Your task to perform on an android device: Show me popular videos on Youtube Image 0: 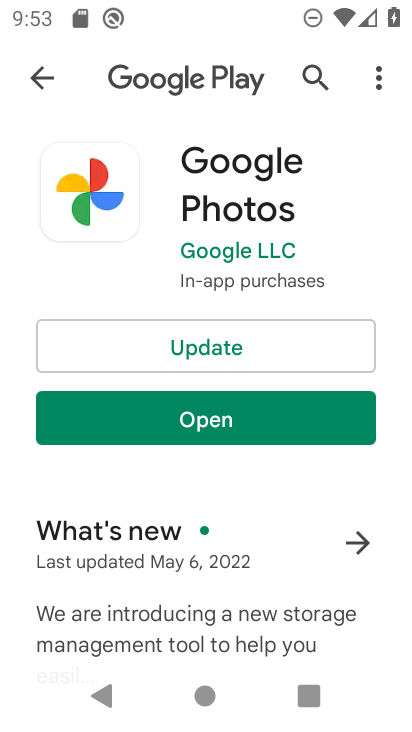
Step 0: press home button
Your task to perform on an android device: Show me popular videos on Youtube Image 1: 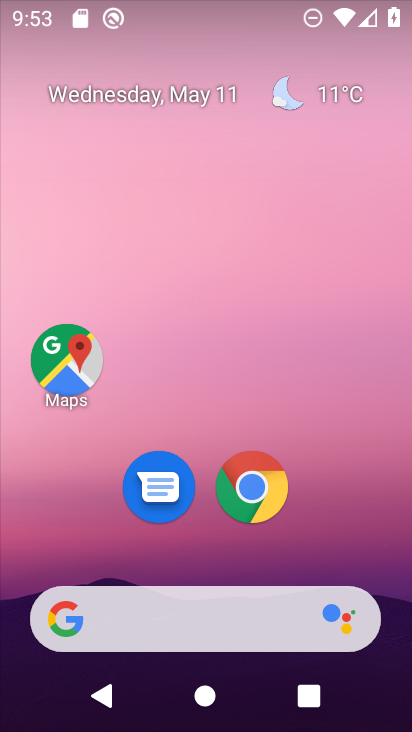
Step 1: drag from (183, 671) to (240, 319)
Your task to perform on an android device: Show me popular videos on Youtube Image 2: 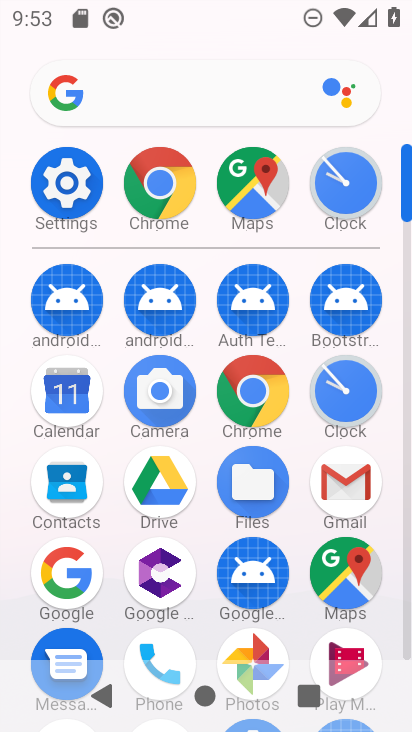
Step 2: drag from (297, 529) to (303, 319)
Your task to perform on an android device: Show me popular videos on Youtube Image 3: 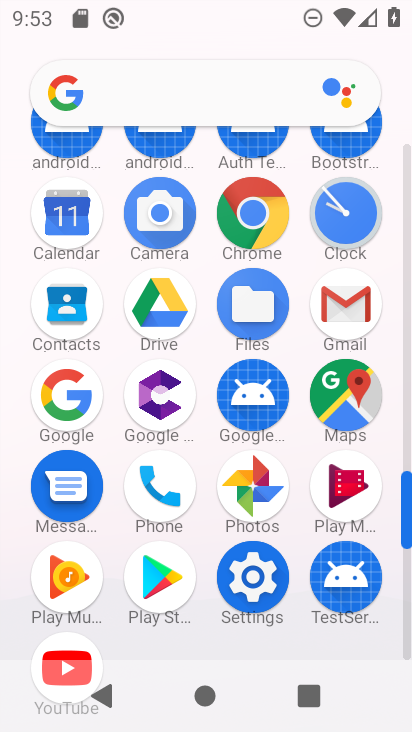
Step 3: click (64, 646)
Your task to perform on an android device: Show me popular videos on Youtube Image 4: 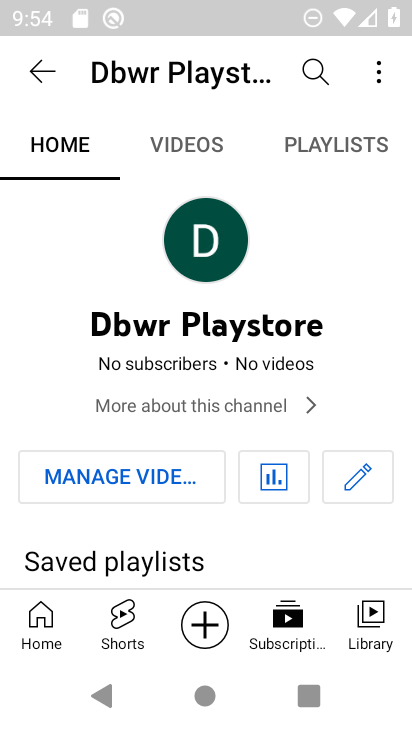
Step 4: click (45, 83)
Your task to perform on an android device: Show me popular videos on Youtube Image 5: 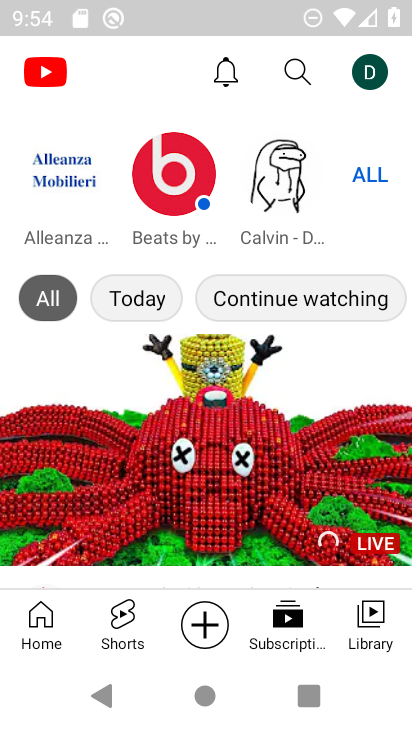
Step 5: click (289, 66)
Your task to perform on an android device: Show me popular videos on Youtube Image 6: 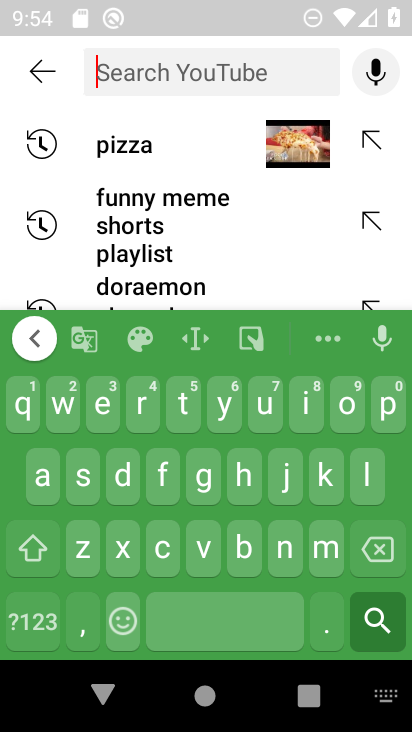
Step 6: click (383, 416)
Your task to perform on an android device: Show me popular videos on Youtube Image 7: 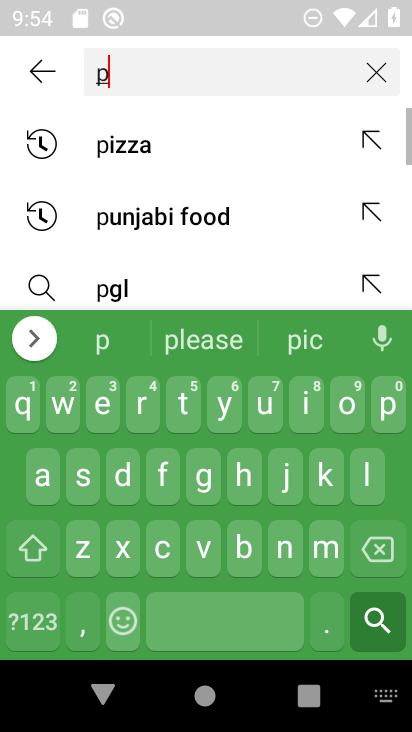
Step 7: click (337, 415)
Your task to perform on an android device: Show me popular videos on Youtube Image 8: 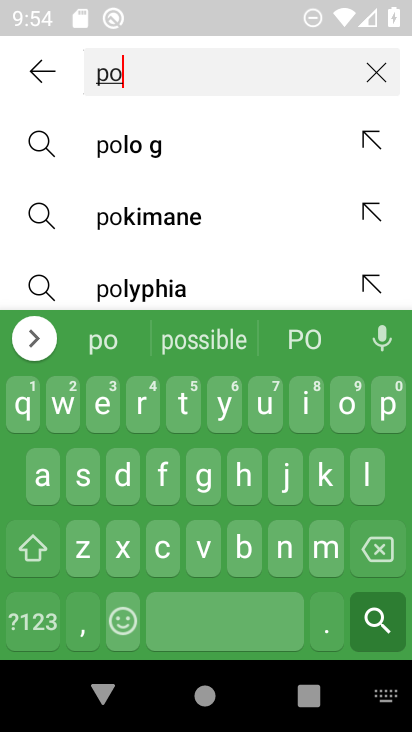
Step 8: click (382, 413)
Your task to perform on an android device: Show me popular videos on Youtube Image 9: 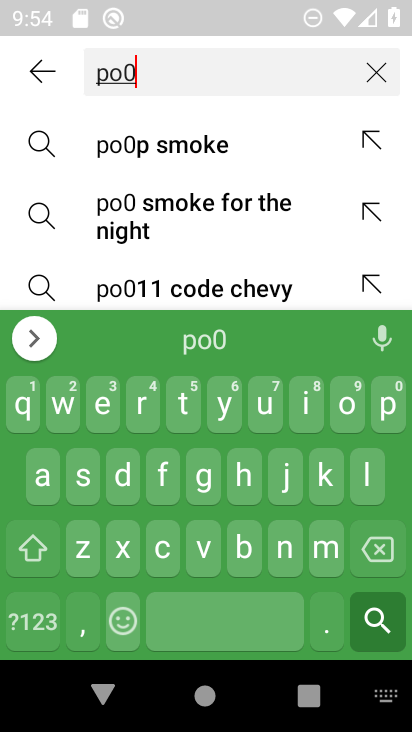
Step 9: click (376, 553)
Your task to perform on an android device: Show me popular videos on Youtube Image 10: 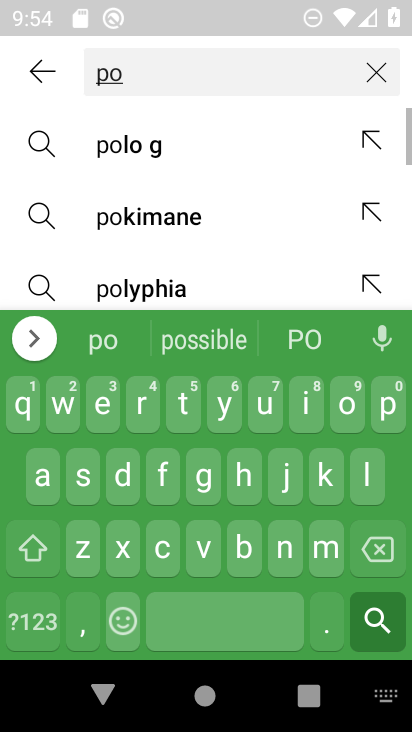
Step 10: click (377, 410)
Your task to perform on an android device: Show me popular videos on Youtube Image 11: 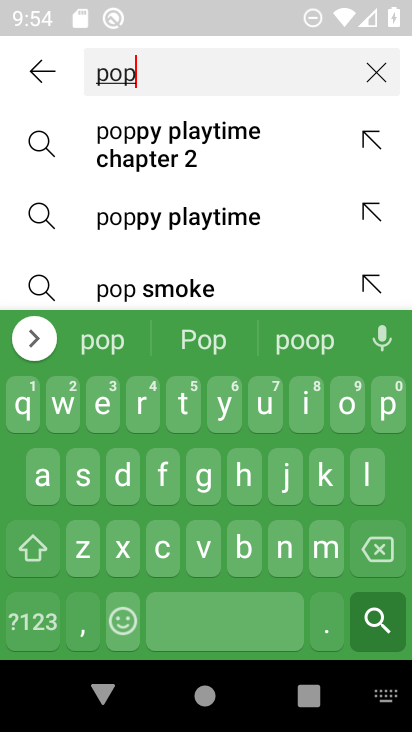
Step 11: click (261, 411)
Your task to perform on an android device: Show me popular videos on Youtube Image 12: 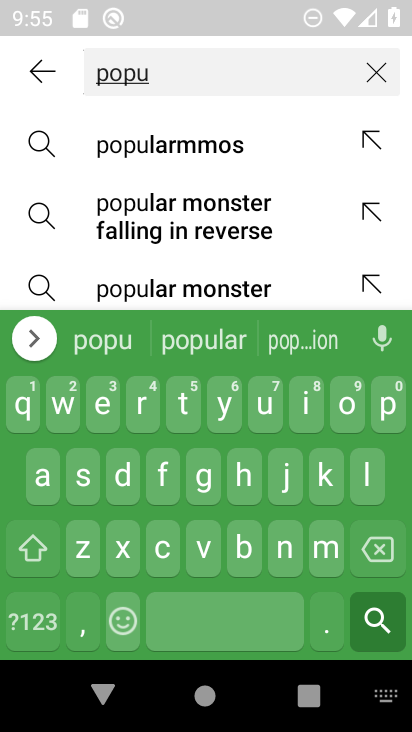
Step 12: click (195, 332)
Your task to perform on an android device: Show me popular videos on Youtube Image 13: 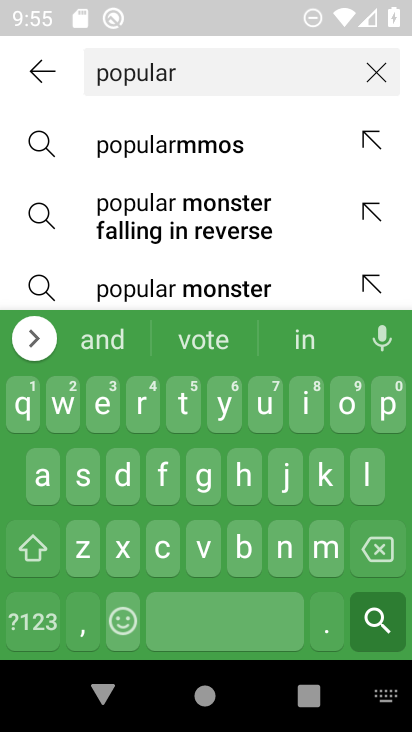
Step 13: click (203, 544)
Your task to perform on an android device: Show me popular videos on Youtube Image 14: 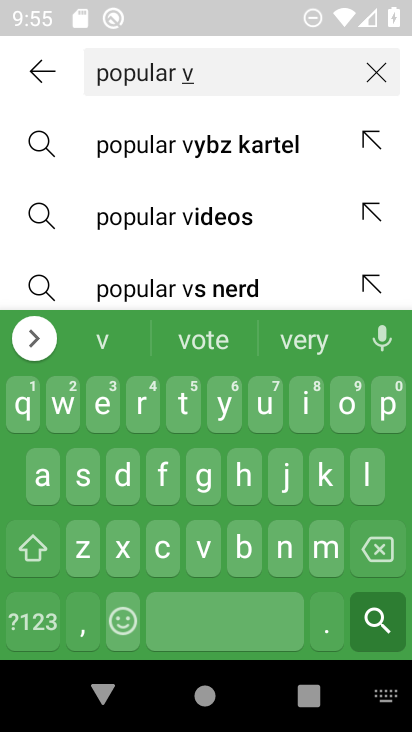
Step 14: click (227, 227)
Your task to perform on an android device: Show me popular videos on Youtube Image 15: 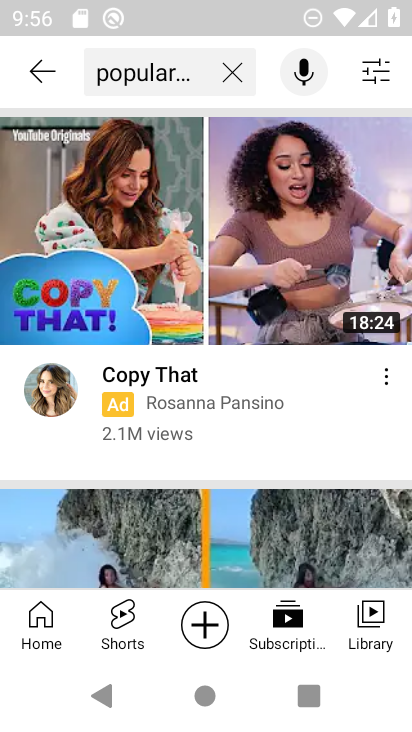
Step 15: task complete